Your task to perform on an android device: Open Chrome and go to the settings page Image 0: 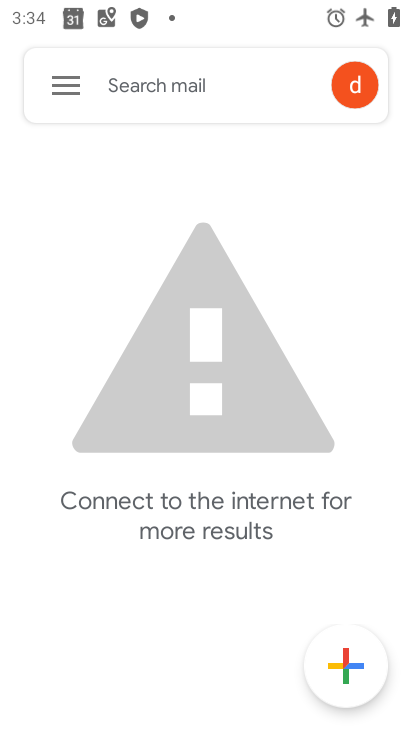
Step 0: press home button
Your task to perform on an android device: Open Chrome and go to the settings page Image 1: 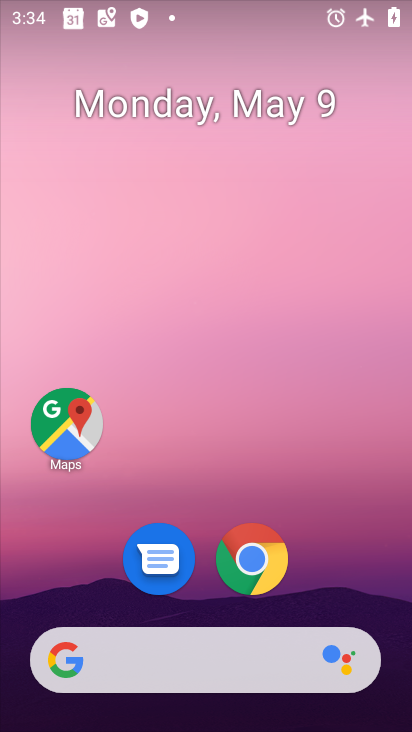
Step 1: drag from (211, 728) to (197, 175)
Your task to perform on an android device: Open Chrome and go to the settings page Image 2: 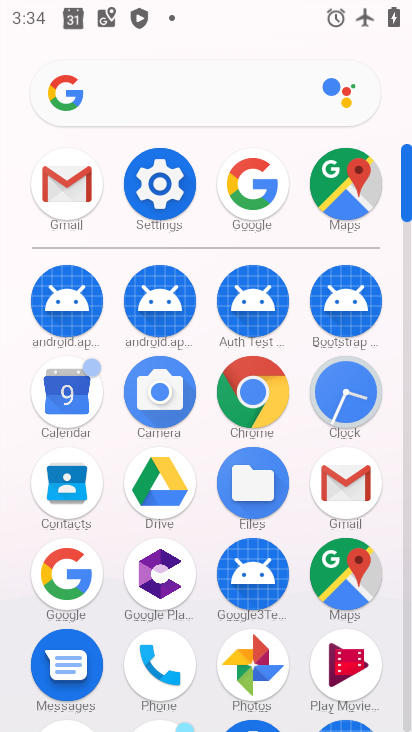
Step 2: click (250, 388)
Your task to perform on an android device: Open Chrome and go to the settings page Image 3: 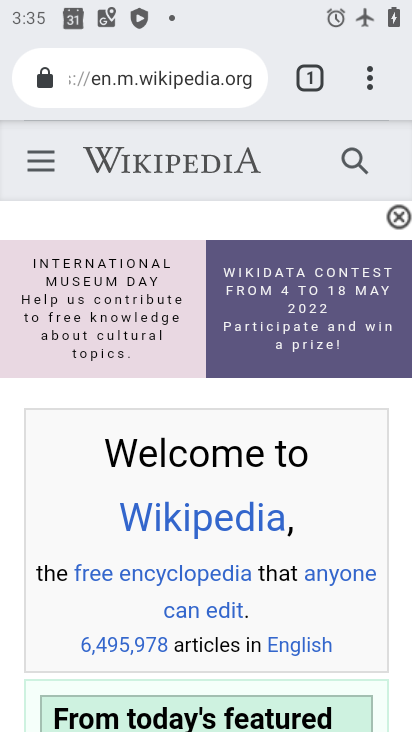
Step 3: click (372, 89)
Your task to perform on an android device: Open Chrome and go to the settings page Image 4: 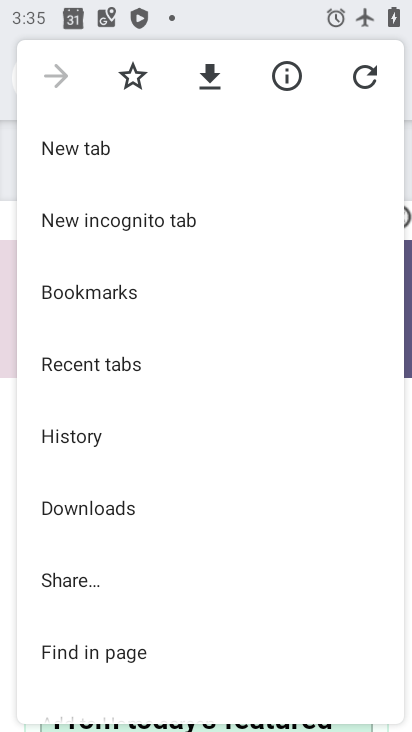
Step 4: drag from (157, 648) to (155, 304)
Your task to perform on an android device: Open Chrome and go to the settings page Image 5: 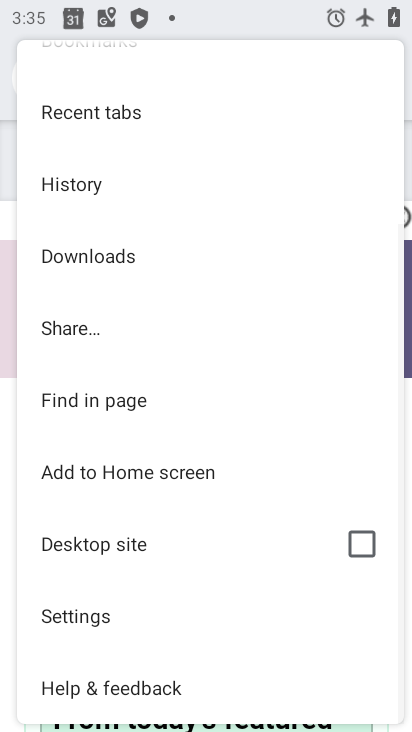
Step 5: click (106, 613)
Your task to perform on an android device: Open Chrome and go to the settings page Image 6: 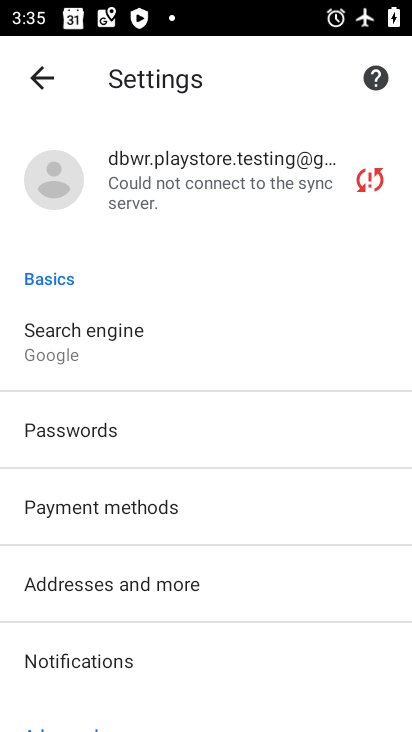
Step 6: task complete